Your task to perform on an android device: clear history in the chrome app Image 0: 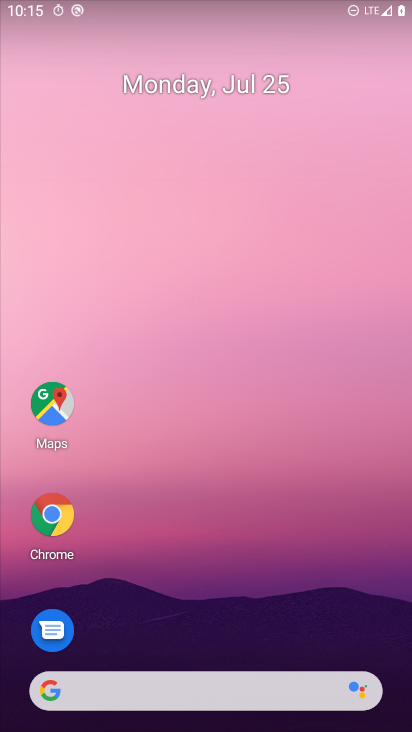
Step 0: click (42, 507)
Your task to perform on an android device: clear history in the chrome app Image 1: 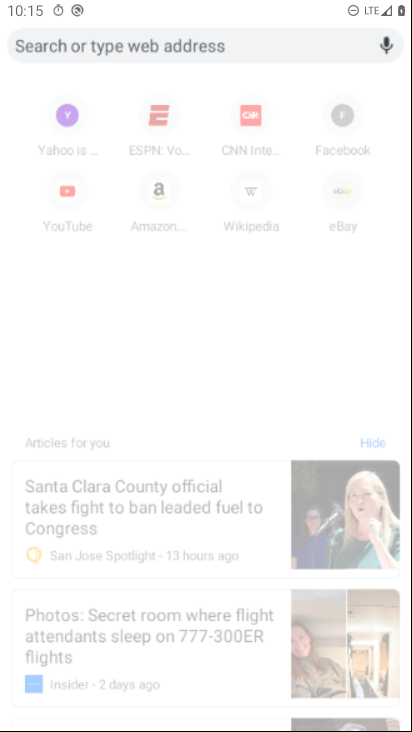
Step 1: click (111, 40)
Your task to perform on an android device: clear history in the chrome app Image 2: 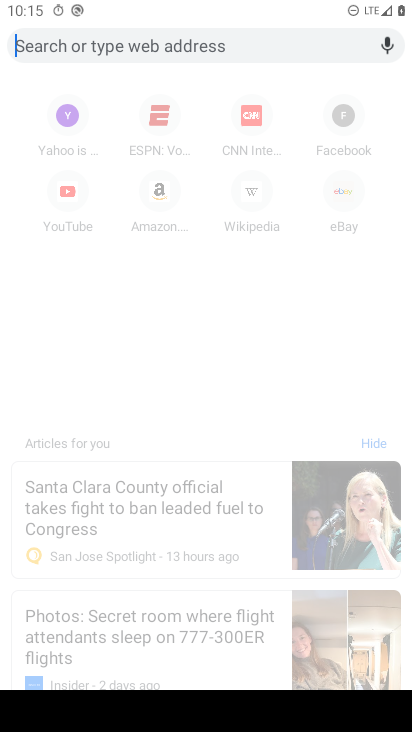
Step 2: click (143, 307)
Your task to perform on an android device: clear history in the chrome app Image 3: 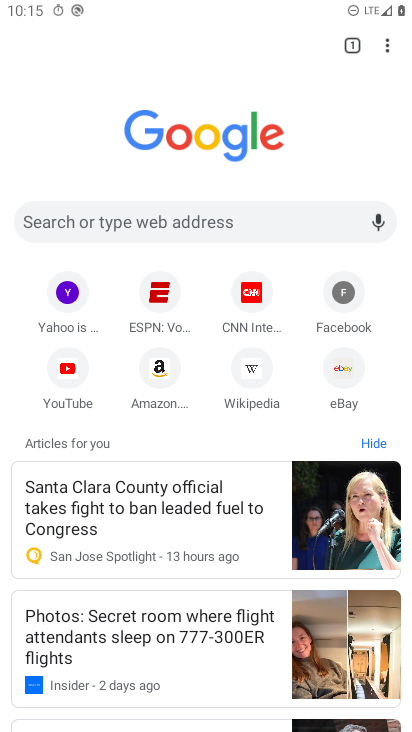
Step 3: click (385, 46)
Your task to perform on an android device: clear history in the chrome app Image 4: 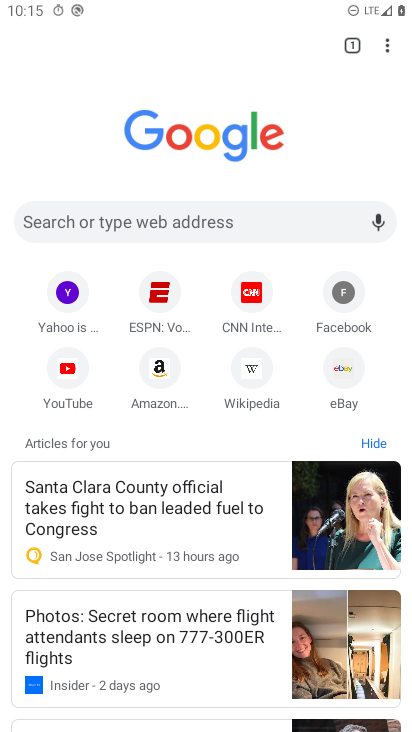
Step 4: click (382, 46)
Your task to perform on an android device: clear history in the chrome app Image 5: 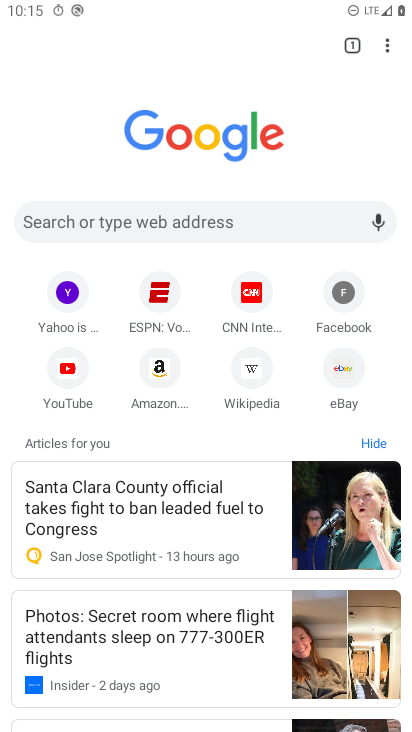
Step 5: click (382, 44)
Your task to perform on an android device: clear history in the chrome app Image 6: 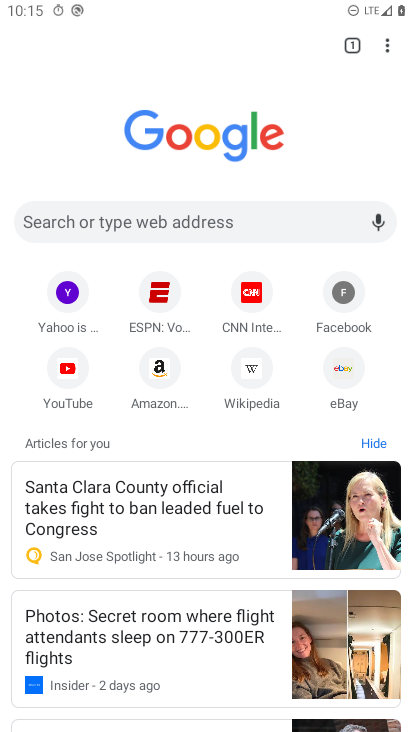
Step 6: click (385, 33)
Your task to perform on an android device: clear history in the chrome app Image 7: 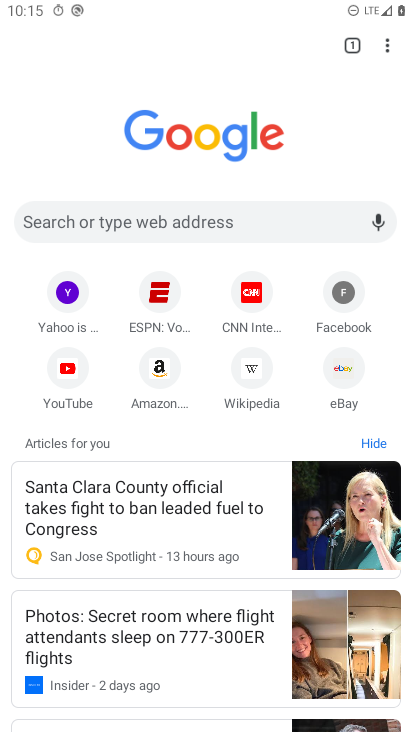
Step 7: task complete